Your task to perform on an android device: turn smart compose on in the gmail app Image 0: 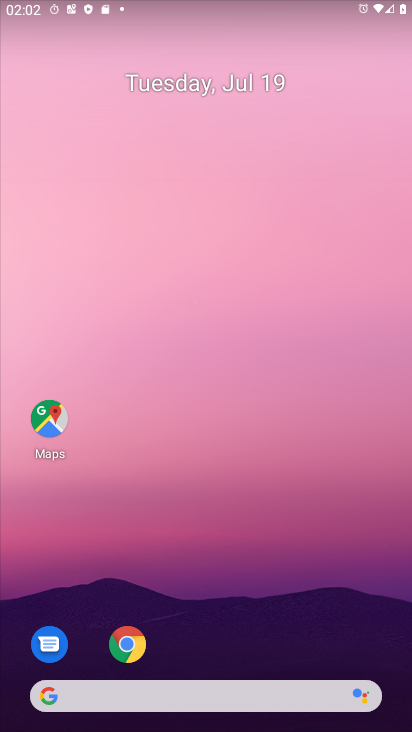
Step 0: drag from (191, 730) to (181, 321)
Your task to perform on an android device: turn smart compose on in the gmail app Image 1: 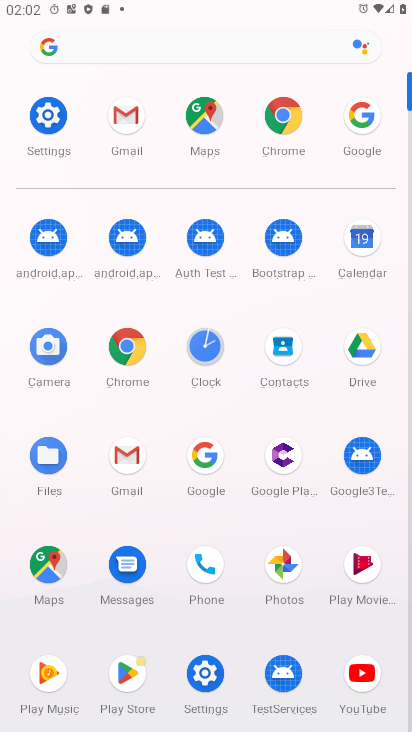
Step 1: click (117, 462)
Your task to perform on an android device: turn smart compose on in the gmail app Image 2: 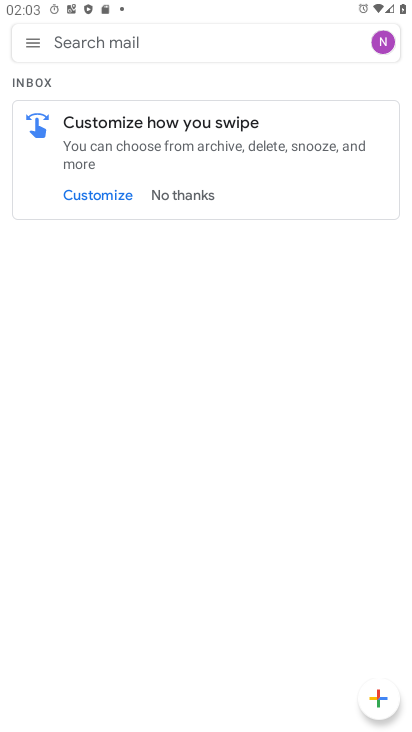
Step 2: click (29, 47)
Your task to perform on an android device: turn smart compose on in the gmail app Image 3: 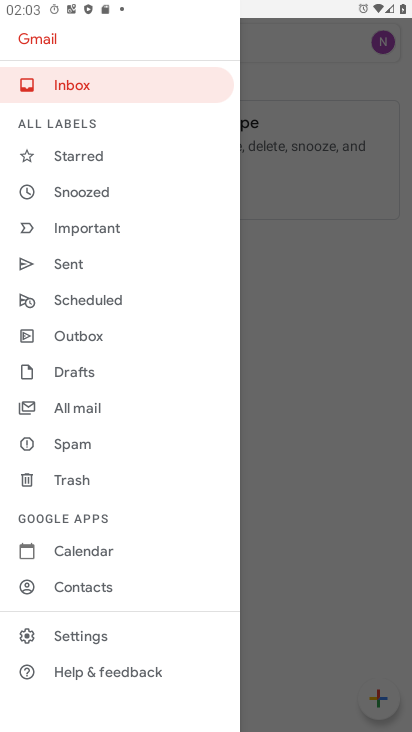
Step 3: click (94, 634)
Your task to perform on an android device: turn smart compose on in the gmail app Image 4: 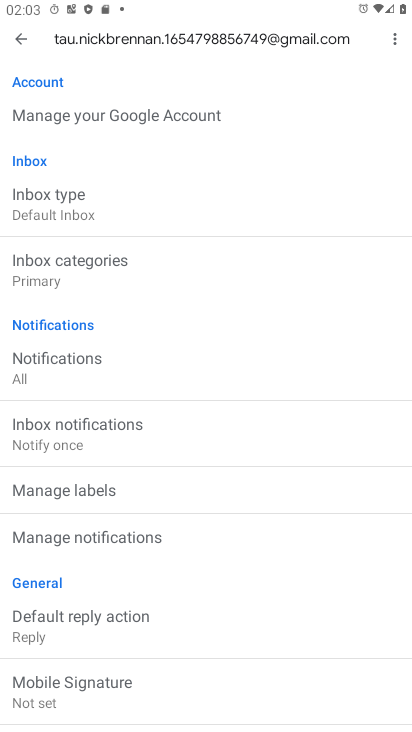
Step 4: task complete